Your task to perform on an android device: See recent photos Image 0: 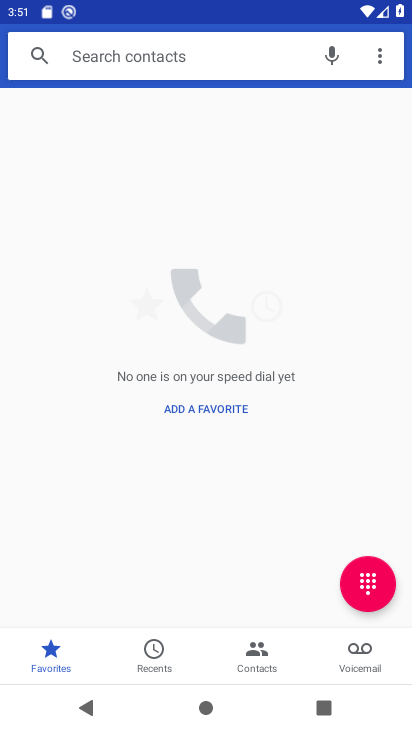
Step 0: press home button
Your task to perform on an android device: See recent photos Image 1: 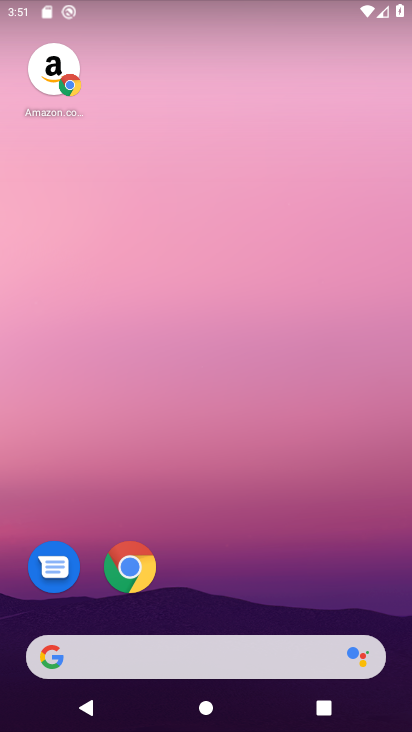
Step 1: drag from (248, 677) to (300, 91)
Your task to perform on an android device: See recent photos Image 2: 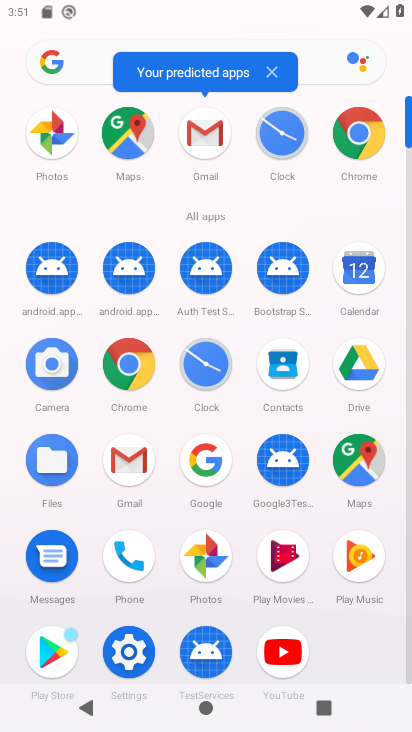
Step 2: click (201, 549)
Your task to perform on an android device: See recent photos Image 3: 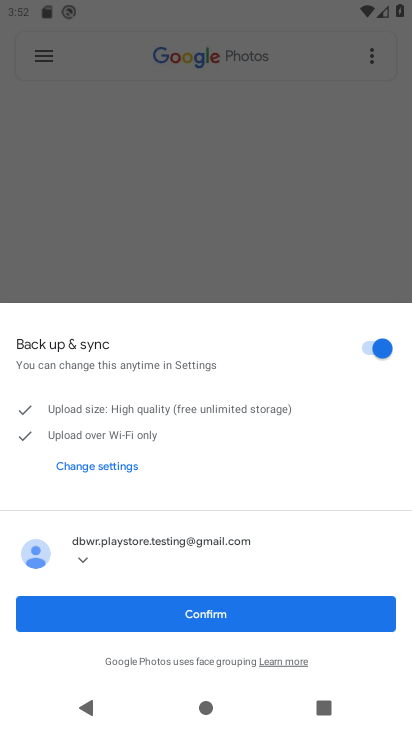
Step 3: click (204, 618)
Your task to perform on an android device: See recent photos Image 4: 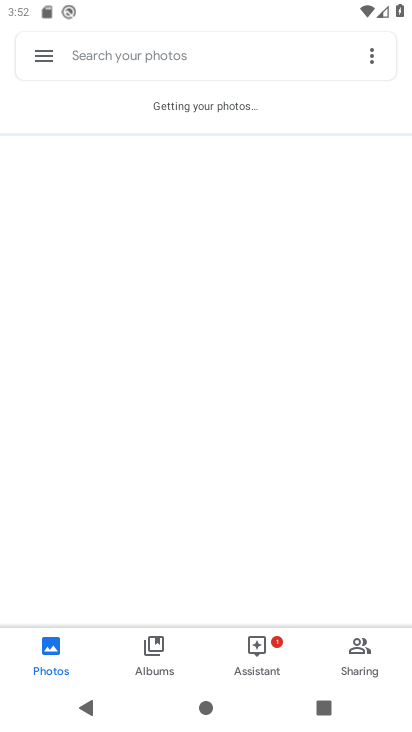
Step 4: click (204, 106)
Your task to perform on an android device: See recent photos Image 5: 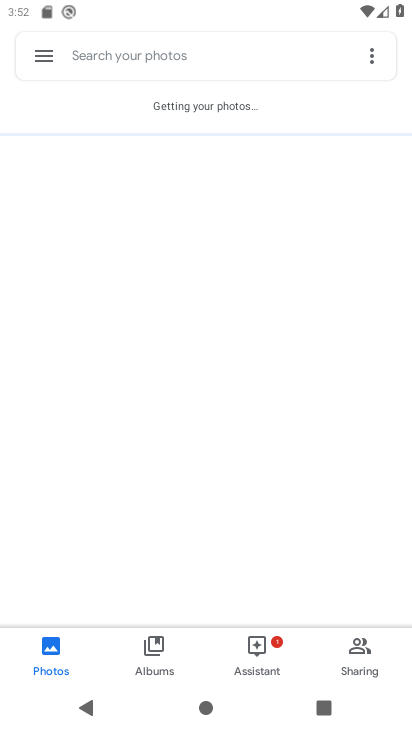
Step 5: click (153, 644)
Your task to perform on an android device: See recent photos Image 6: 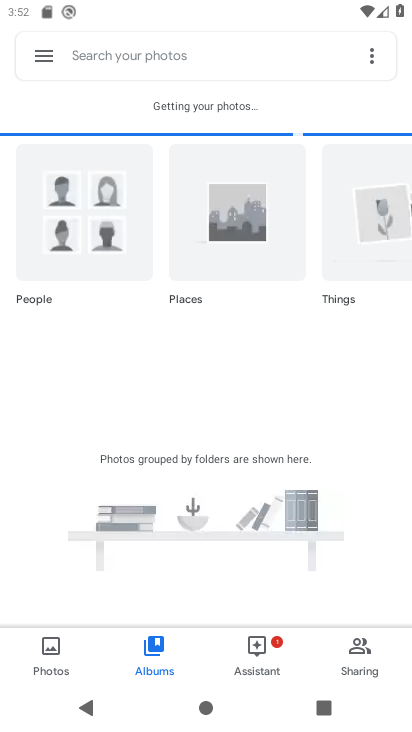
Step 6: click (53, 648)
Your task to perform on an android device: See recent photos Image 7: 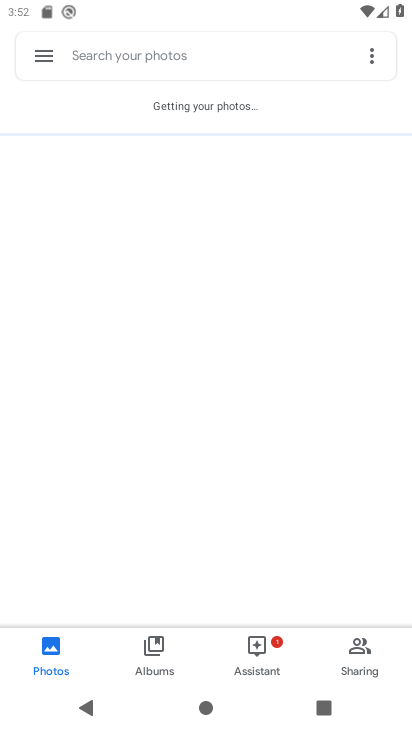
Step 7: task complete